Your task to perform on an android device: Search for a new desk on IKEA. Image 0: 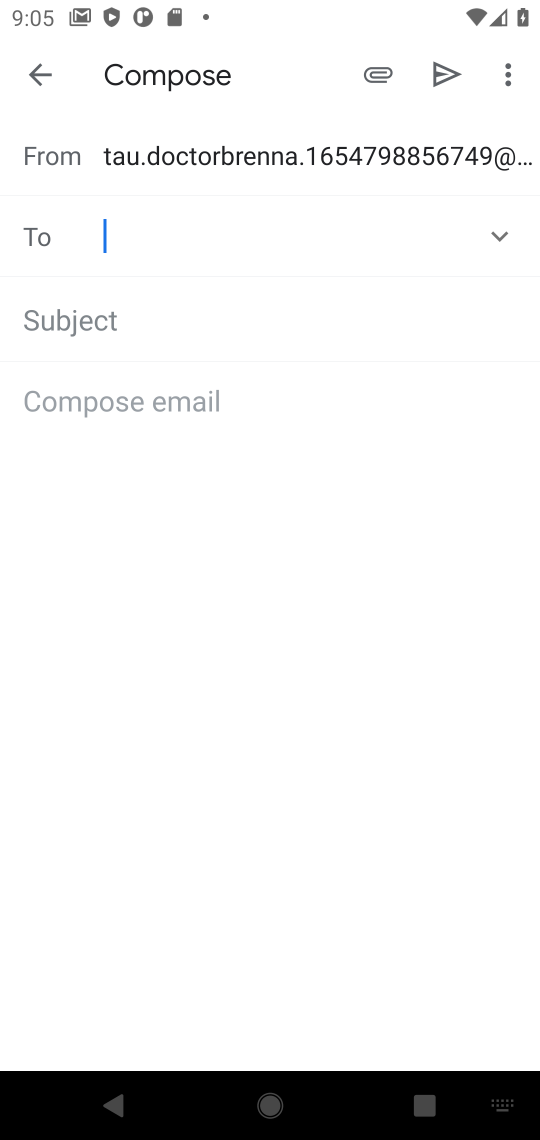
Step 0: press home button
Your task to perform on an android device: Search for a new desk on IKEA. Image 1: 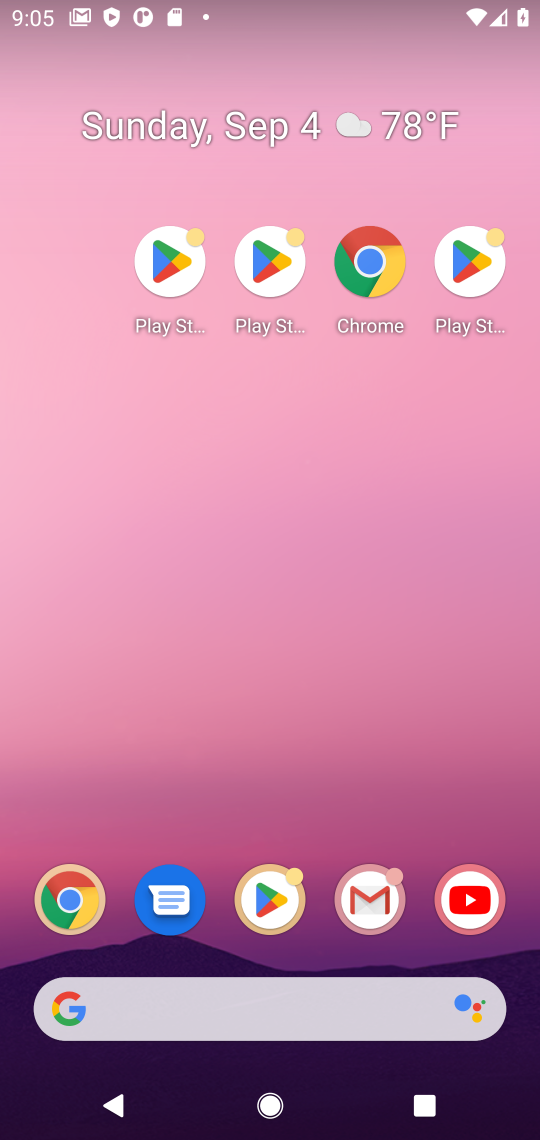
Step 1: drag from (312, 980) to (2, 817)
Your task to perform on an android device: Search for a new desk on IKEA. Image 2: 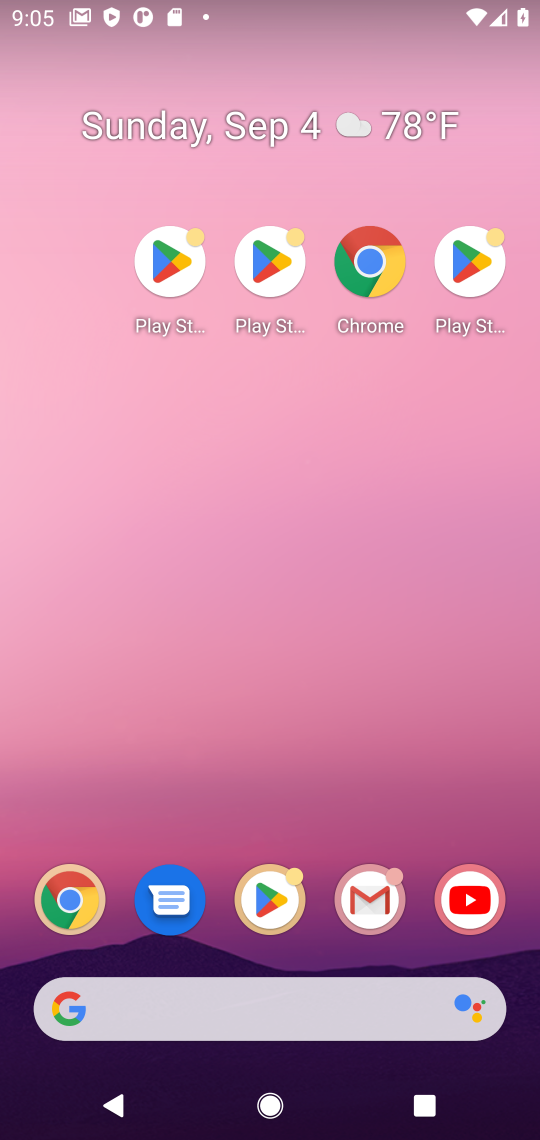
Step 2: drag from (279, 963) to (73, 13)
Your task to perform on an android device: Search for a new desk on IKEA. Image 3: 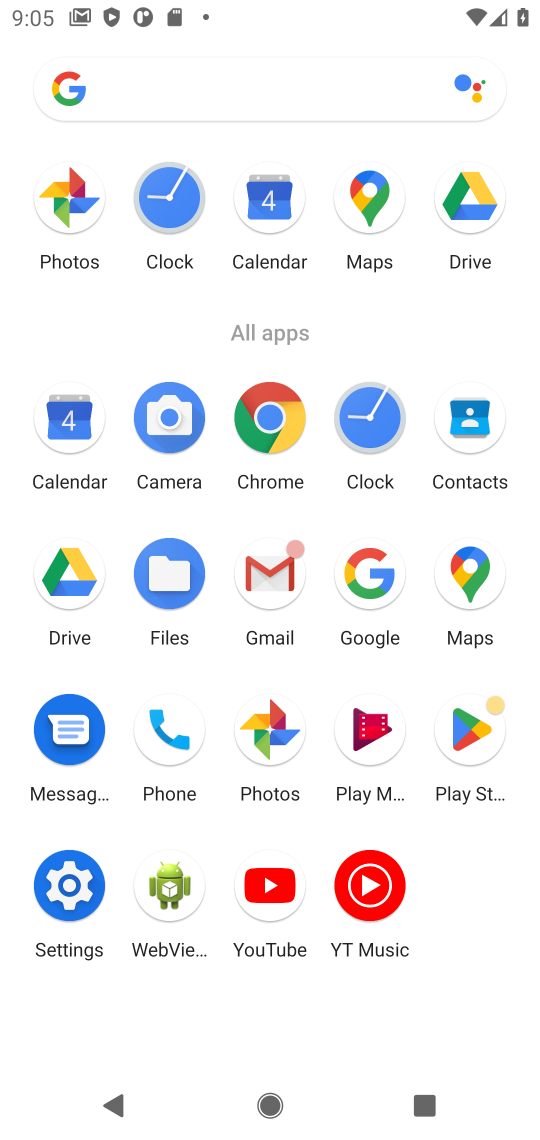
Step 3: click (261, 419)
Your task to perform on an android device: Search for a new desk on IKEA. Image 4: 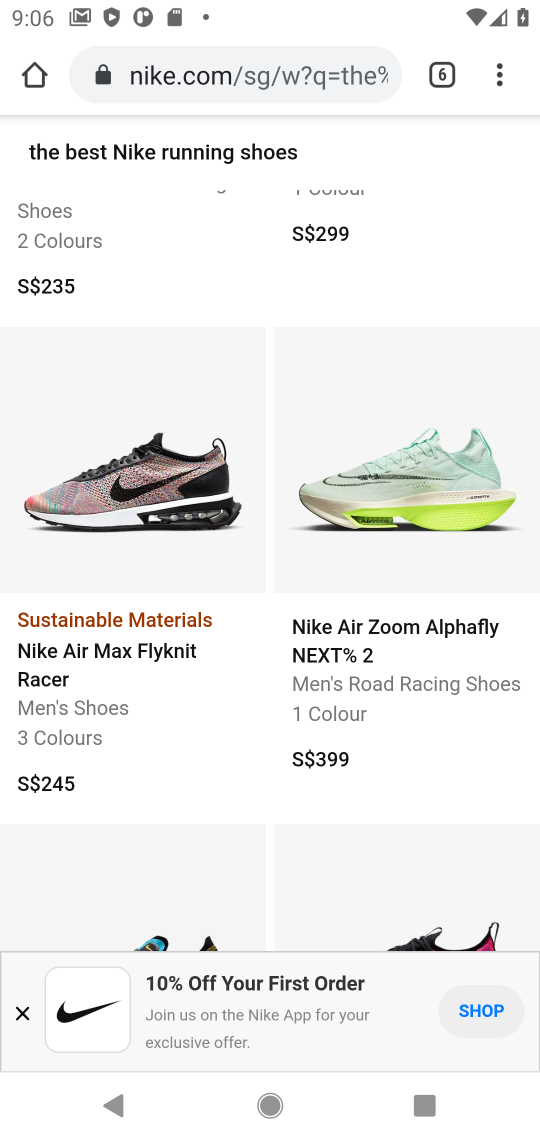
Step 4: click (442, 80)
Your task to perform on an android device: Search for a new desk on IKEA. Image 5: 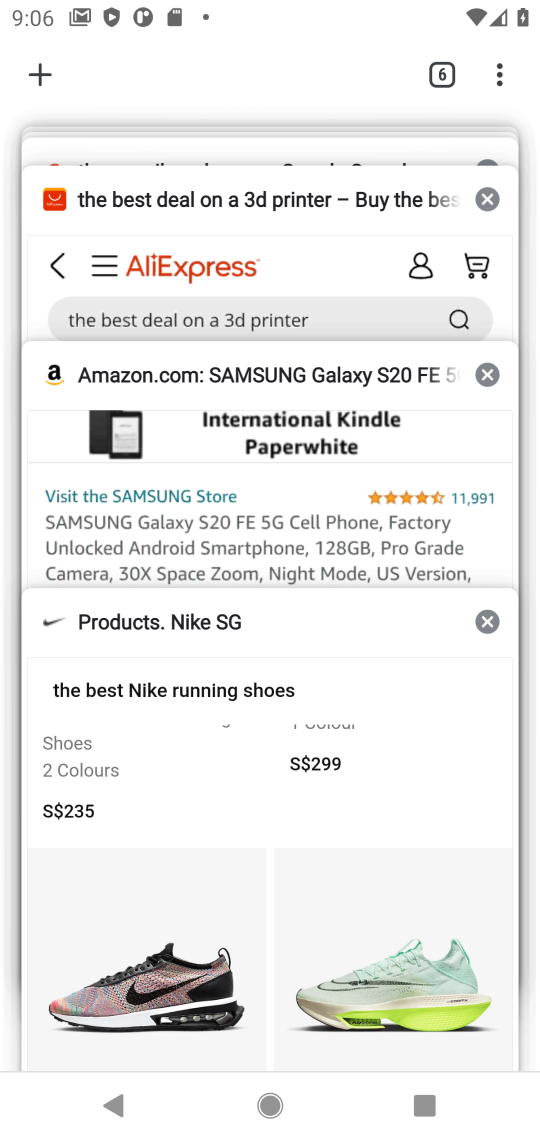
Step 5: click (35, 60)
Your task to perform on an android device: Search for a new desk on IKEA. Image 6: 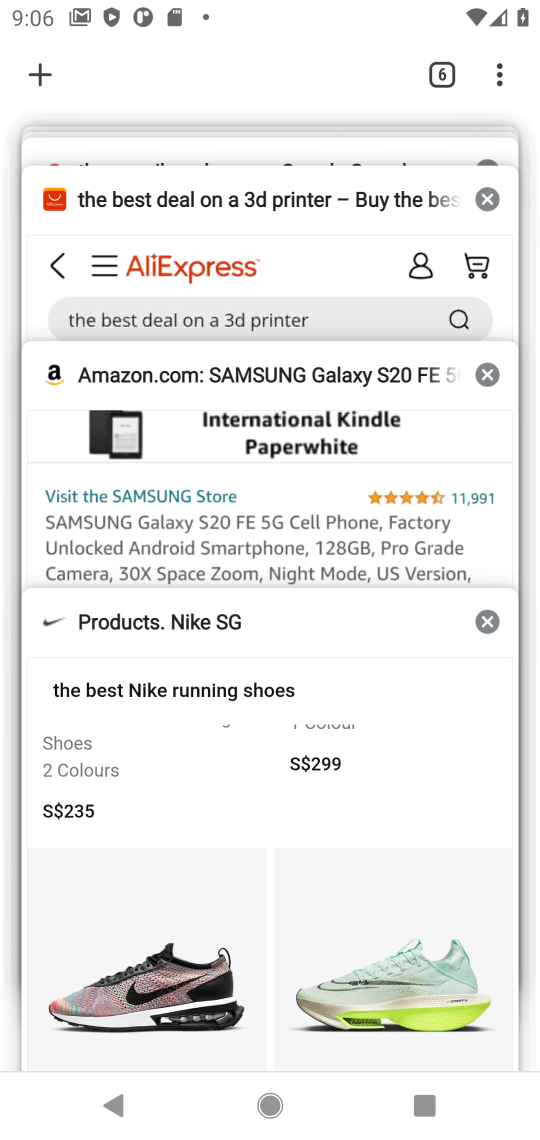
Step 6: click (28, 65)
Your task to perform on an android device: Search for a new desk on IKEA. Image 7: 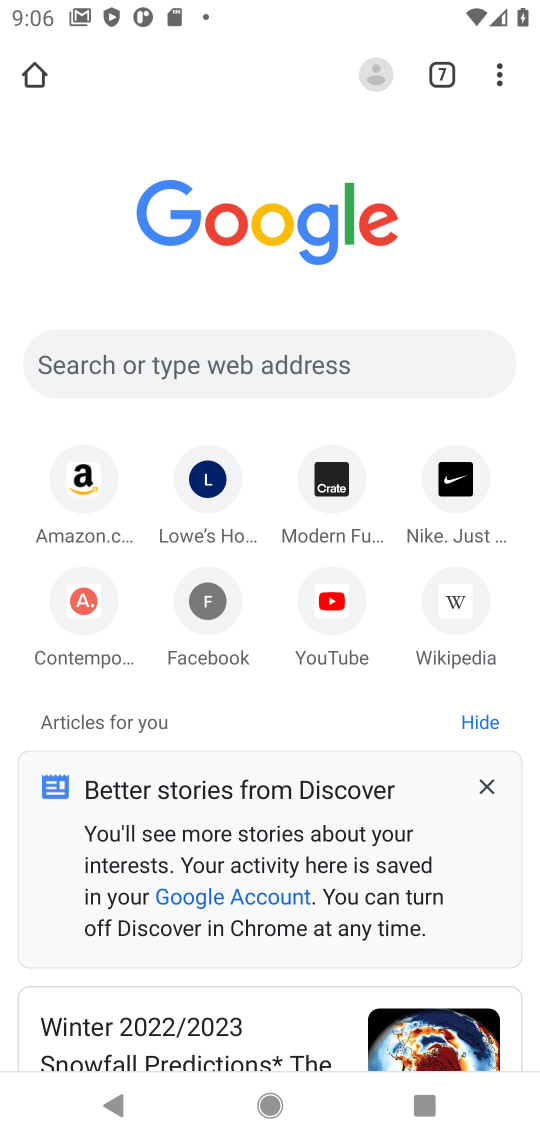
Step 7: click (252, 381)
Your task to perform on an android device: Search for a new desk on IKEA. Image 8: 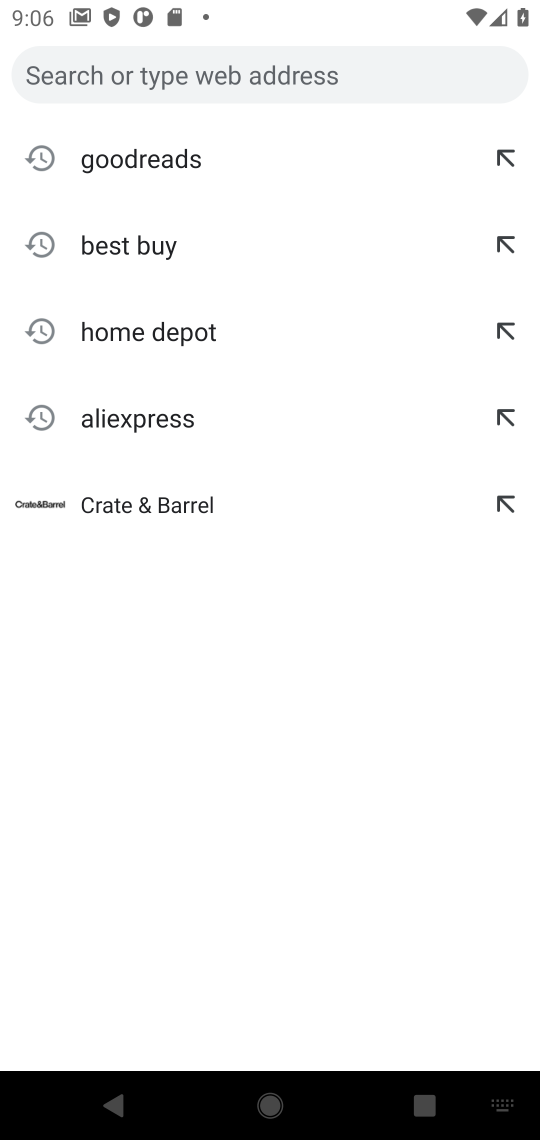
Step 8: type "IKEA"
Your task to perform on an android device: Search for a new desk on IKEA. Image 9: 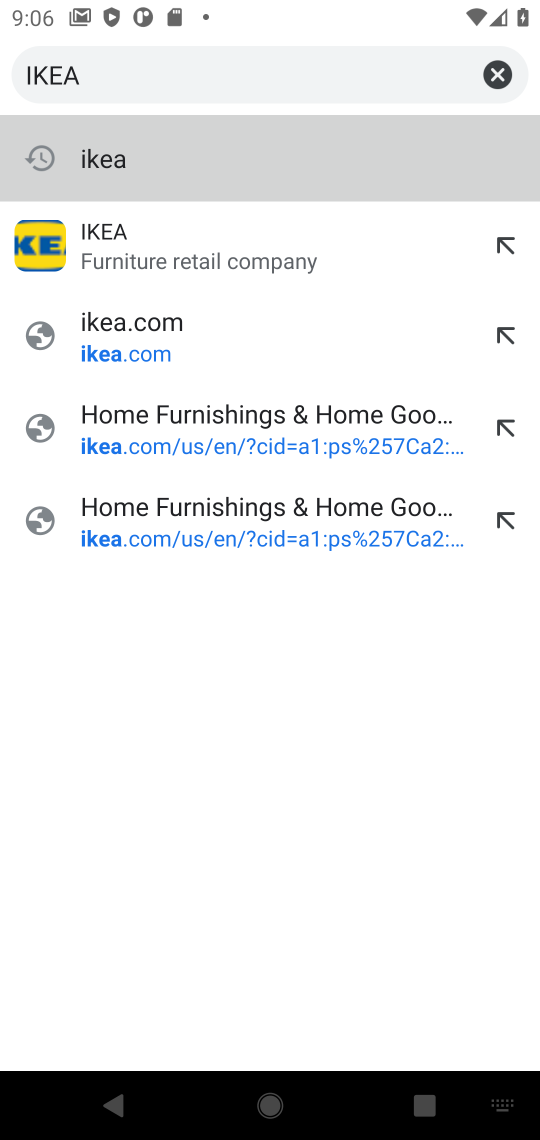
Step 9: type ""
Your task to perform on an android device: Search for a new desk on IKEA. Image 10: 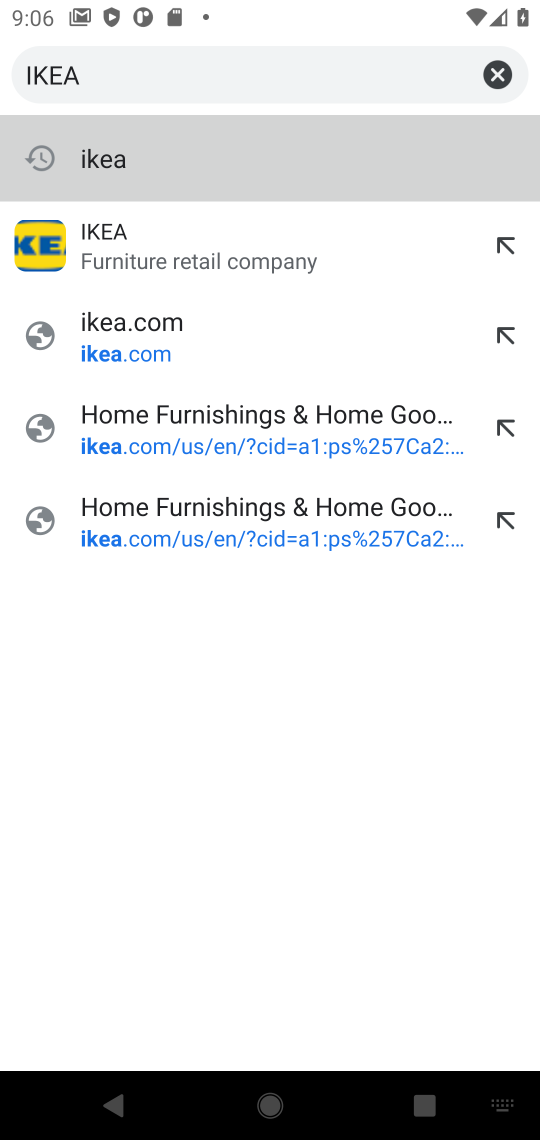
Step 10: click (88, 164)
Your task to perform on an android device: Search for a new desk on IKEA. Image 11: 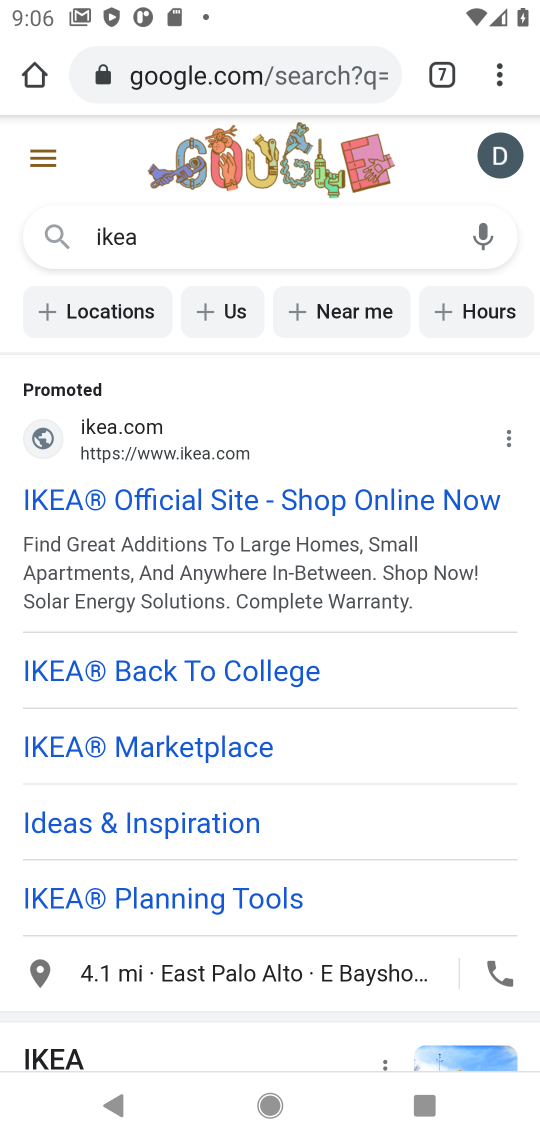
Step 11: click (130, 504)
Your task to perform on an android device: Search for a new desk on IKEA. Image 12: 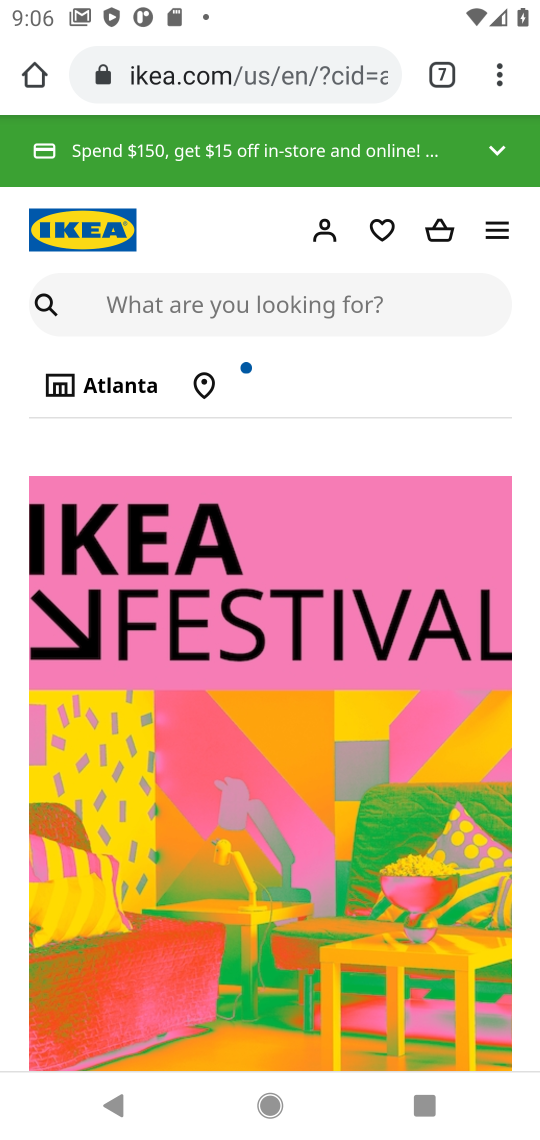
Step 12: drag from (249, 839) to (213, 395)
Your task to perform on an android device: Search for a new desk on IKEA. Image 13: 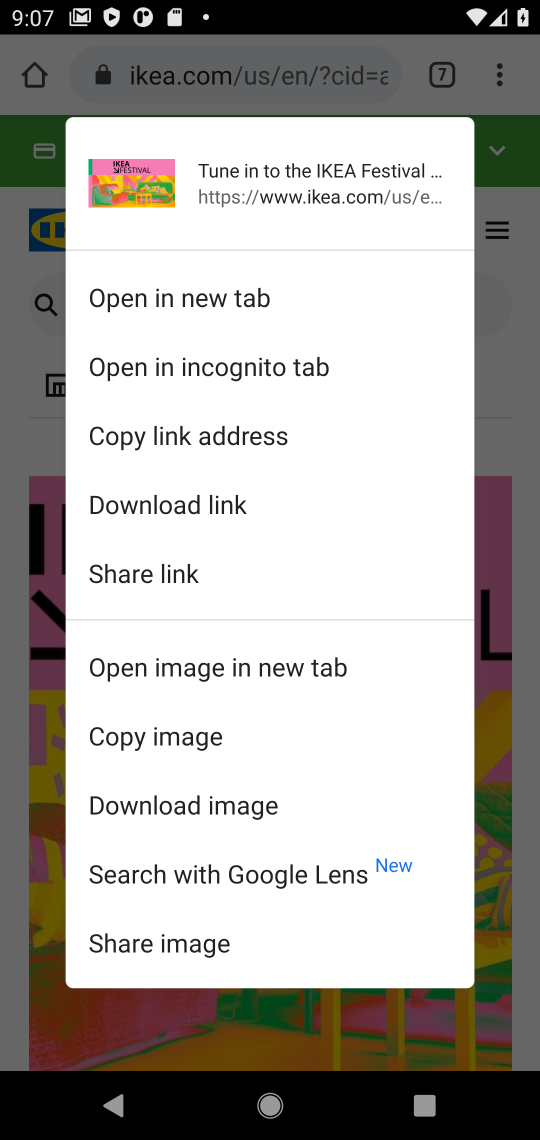
Step 13: click (504, 373)
Your task to perform on an android device: Search for a new desk on IKEA. Image 14: 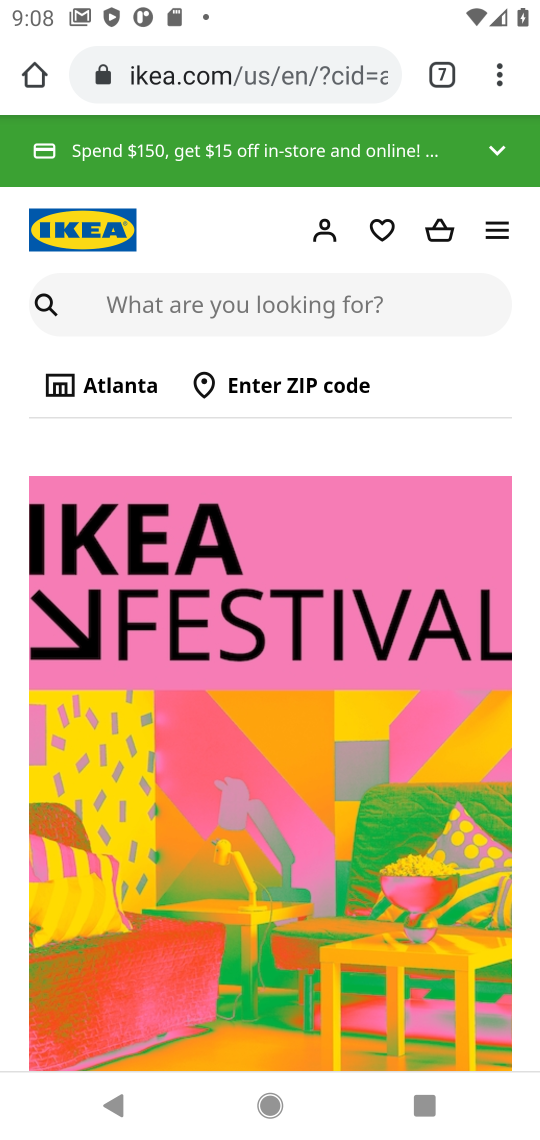
Step 14: click (166, 310)
Your task to perform on an android device: Search for a new desk on IKEA. Image 15: 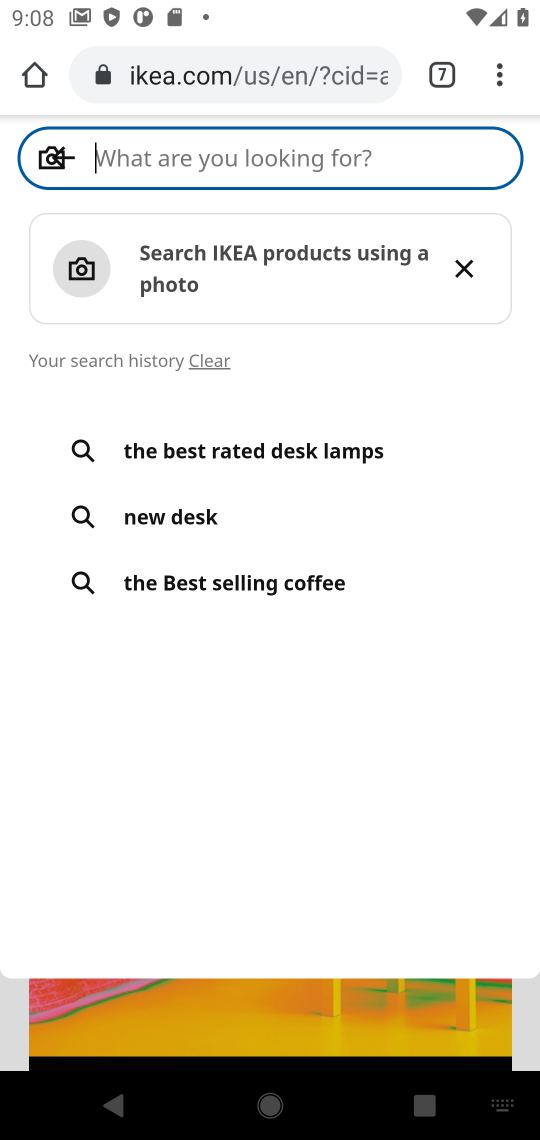
Step 15: type "new desk"
Your task to perform on an android device: Search for a new desk on IKEA. Image 16: 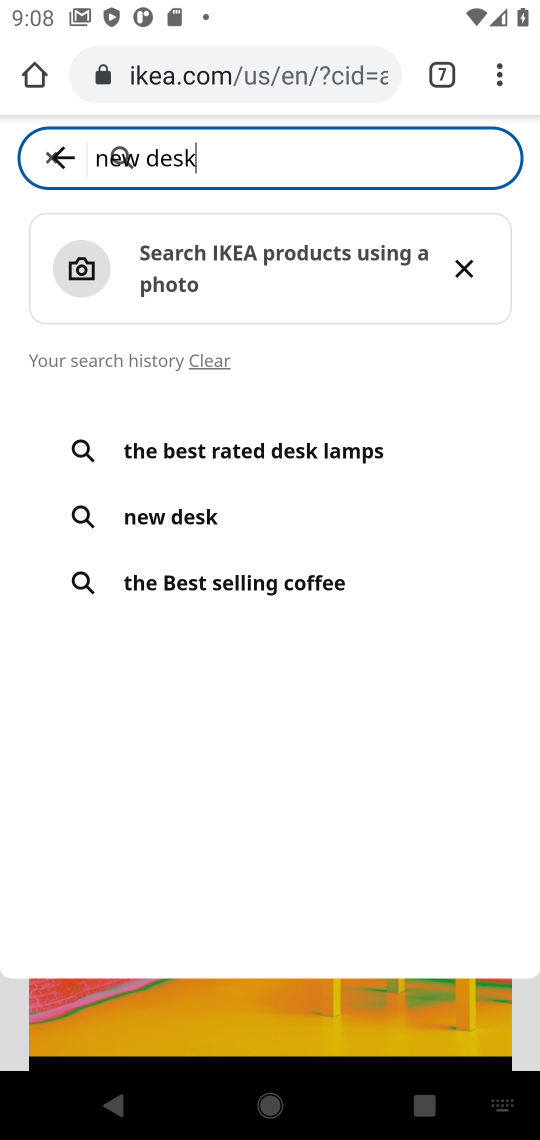
Step 16: type ""
Your task to perform on an android device: Search for a new desk on IKEA. Image 17: 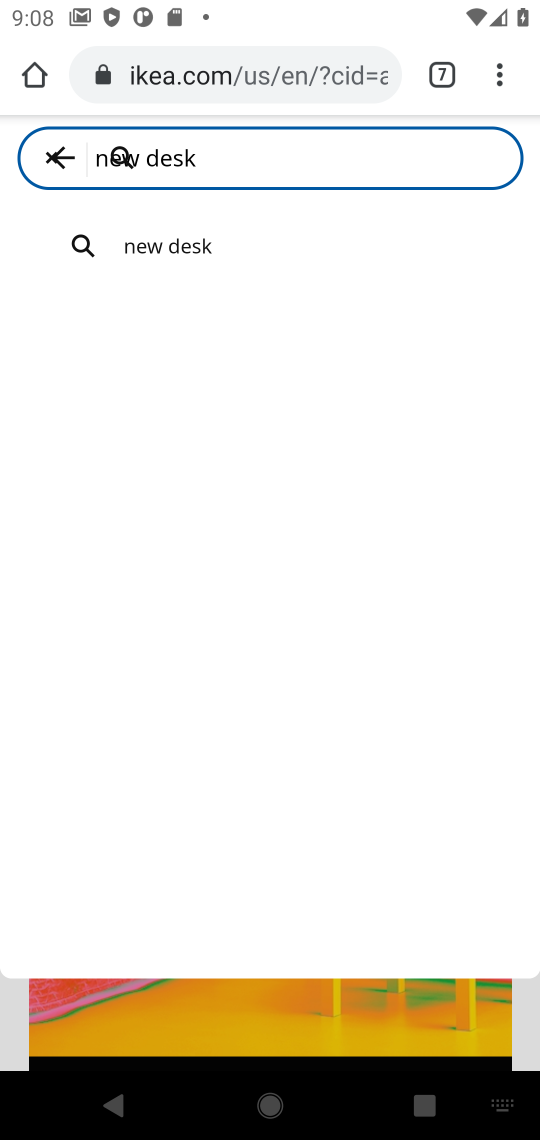
Step 17: click (192, 243)
Your task to perform on an android device: Search for a new desk on IKEA. Image 18: 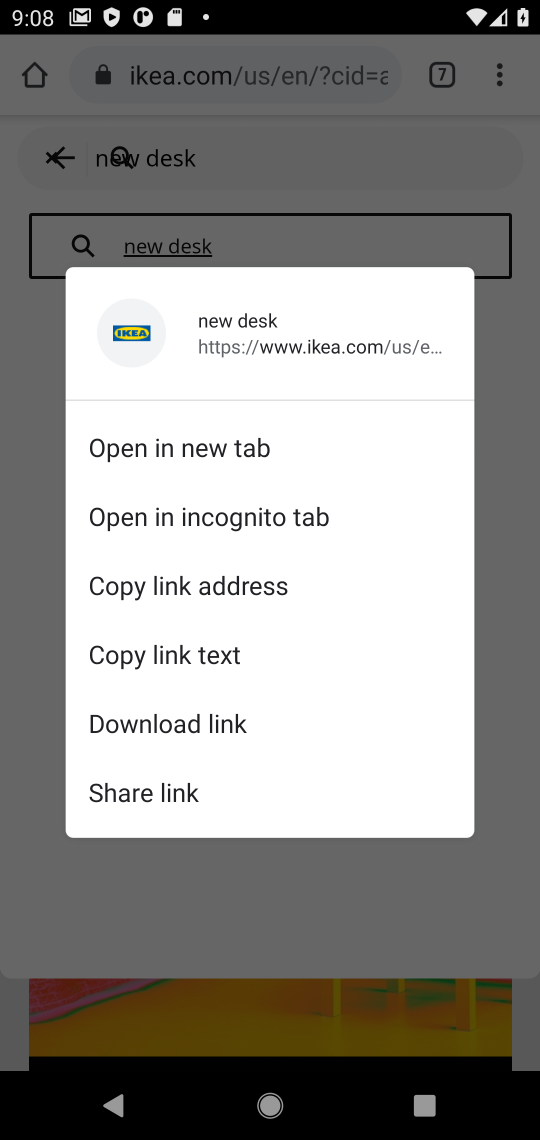
Step 18: click (502, 426)
Your task to perform on an android device: Search for a new desk on IKEA. Image 19: 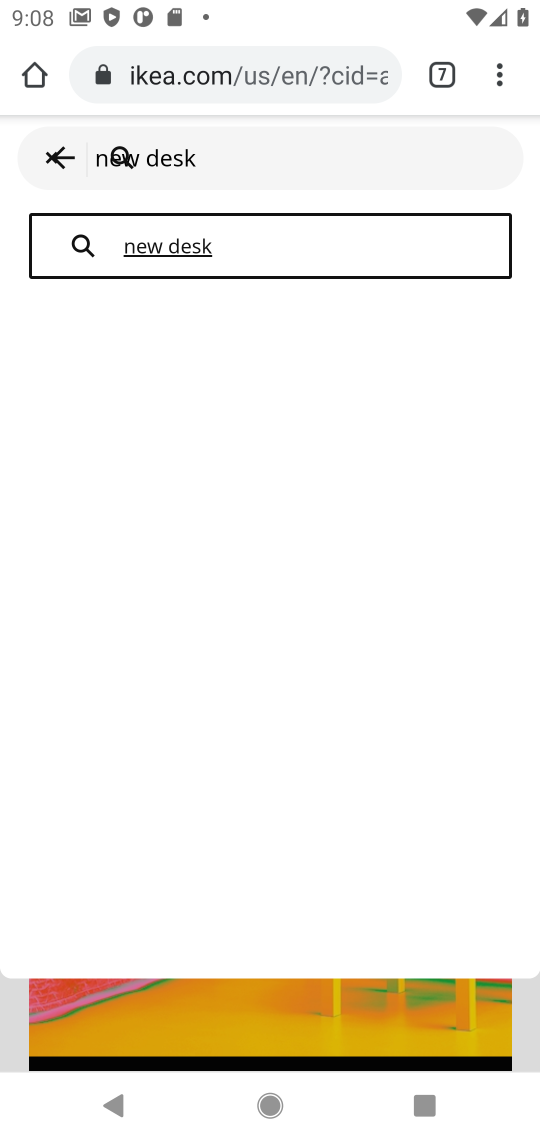
Step 19: click (92, 233)
Your task to perform on an android device: Search for a new desk on IKEA. Image 20: 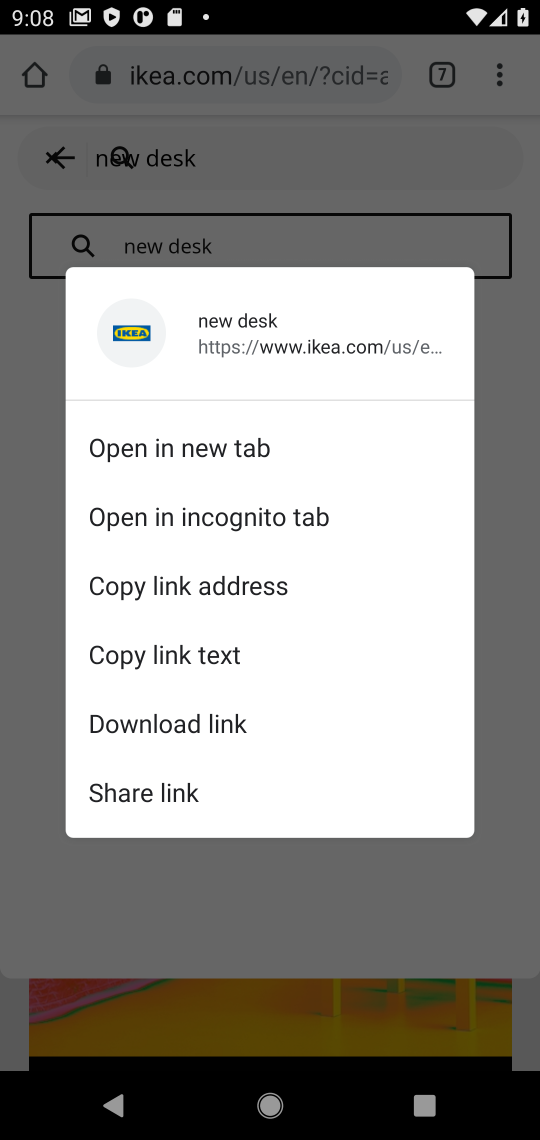
Step 20: click (82, 250)
Your task to perform on an android device: Search for a new desk on IKEA. Image 21: 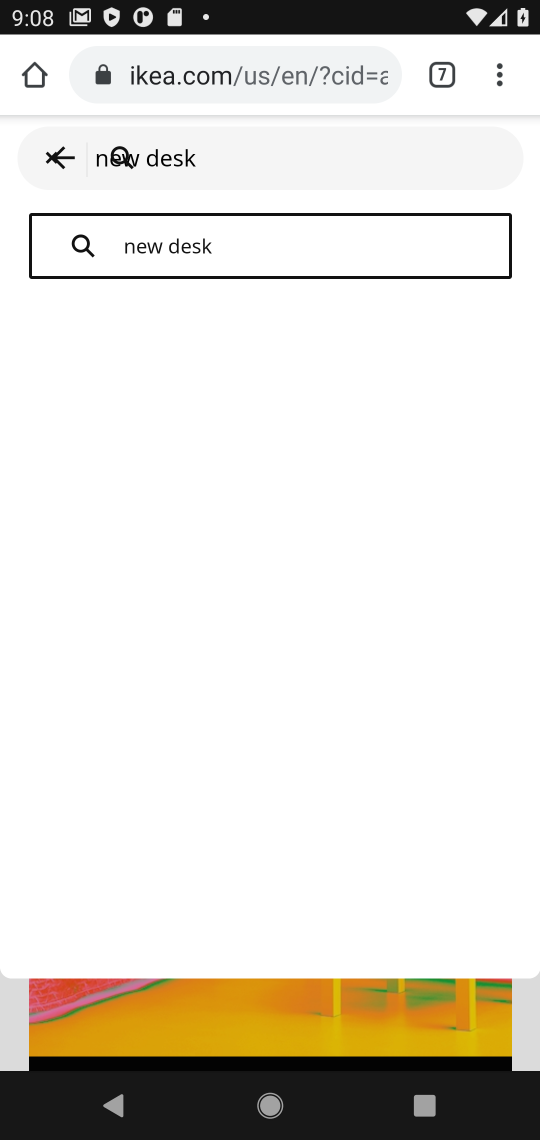
Step 21: click (82, 250)
Your task to perform on an android device: Search for a new desk on IKEA. Image 22: 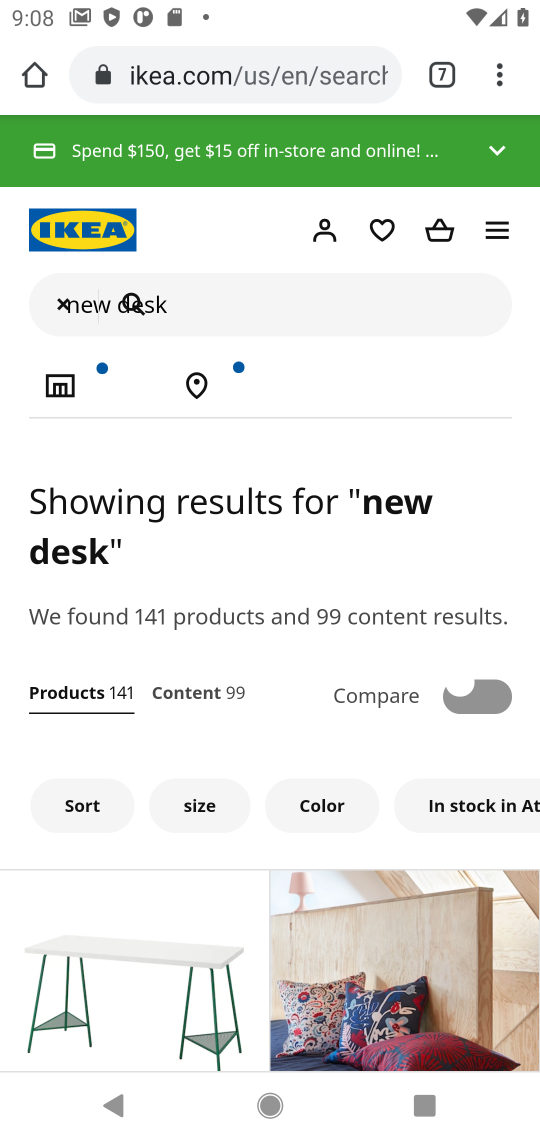
Step 22: task complete